Your task to perform on an android device: Search for pizza restaurants on Maps Image 0: 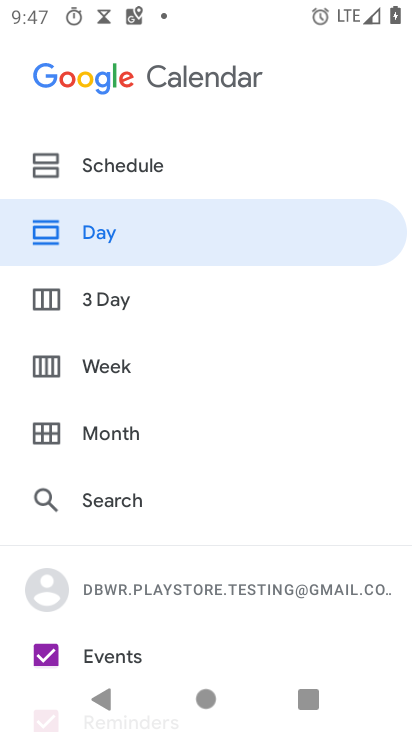
Step 0: press home button
Your task to perform on an android device: Search for pizza restaurants on Maps Image 1: 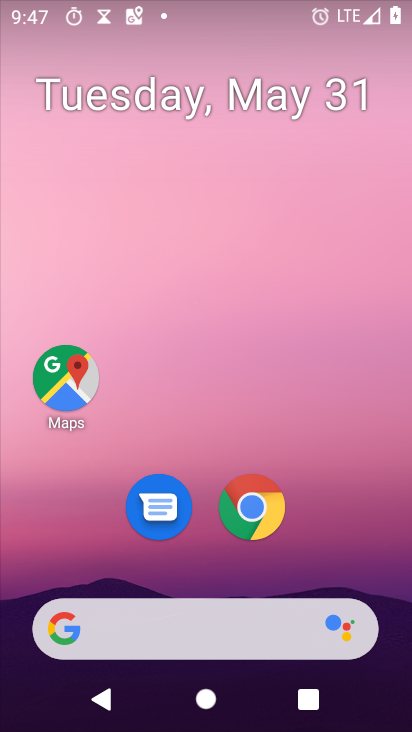
Step 1: click (37, 383)
Your task to perform on an android device: Search for pizza restaurants on Maps Image 2: 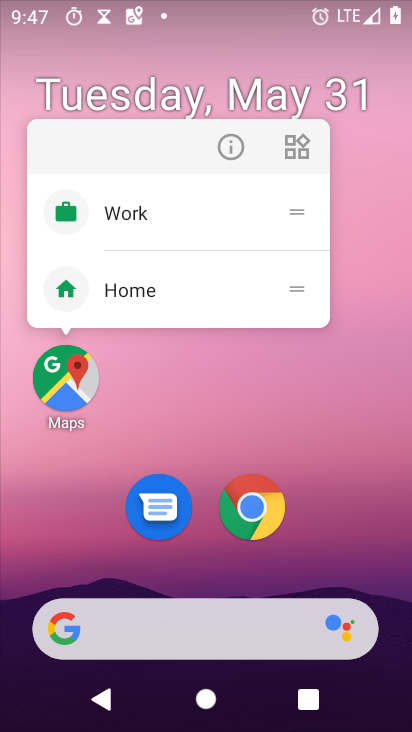
Step 2: click (53, 377)
Your task to perform on an android device: Search for pizza restaurants on Maps Image 3: 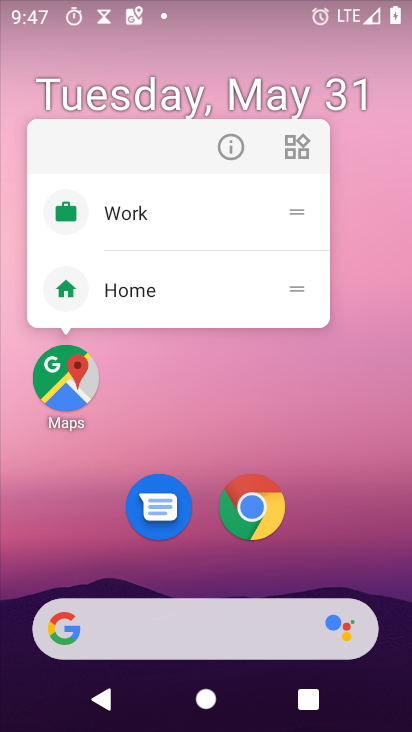
Step 3: click (54, 372)
Your task to perform on an android device: Search for pizza restaurants on Maps Image 4: 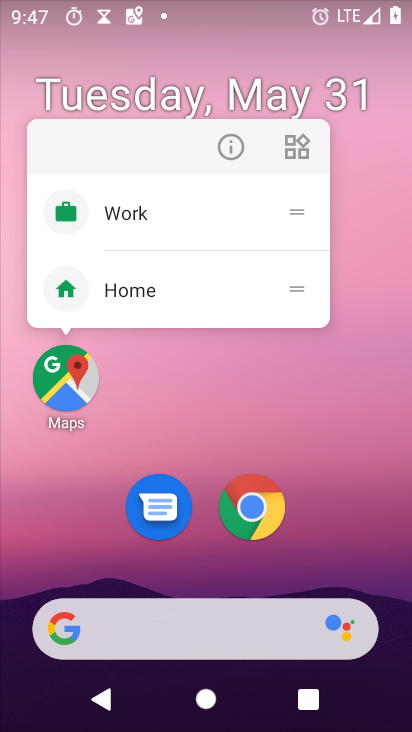
Step 4: click (54, 371)
Your task to perform on an android device: Search for pizza restaurants on Maps Image 5: 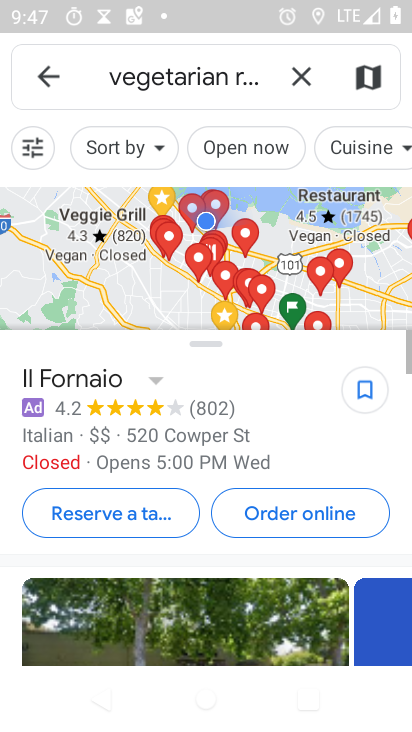
Step 5: click (292, 81)
Your task to perform on an android device: Search for pizza restaurants on Maps Image 6: 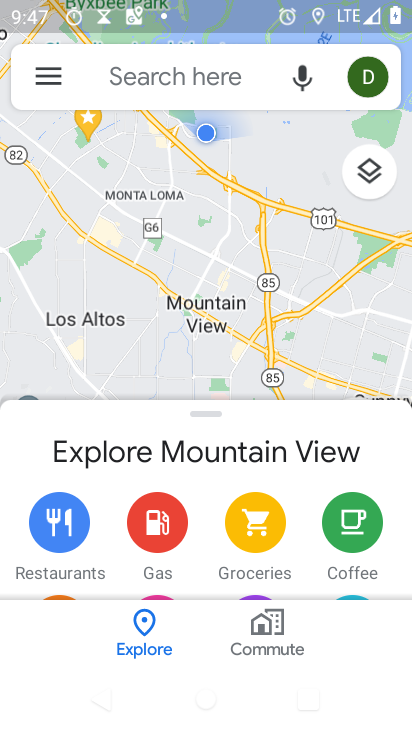
Step 6: click (196, 78)
Your task to perform on an android device: Search for pizza restaurants on Maps Image 7: 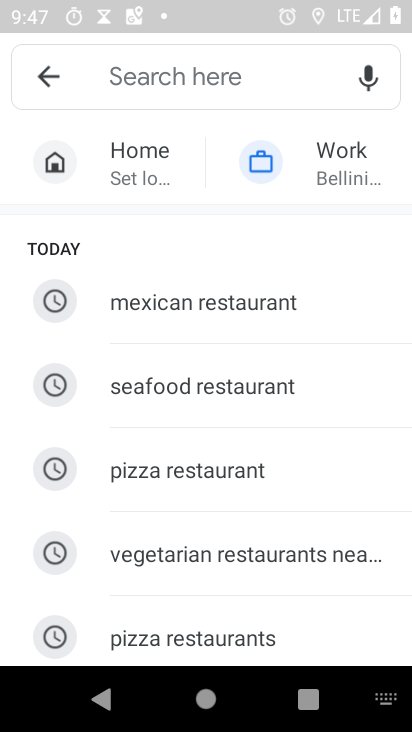
Step 7: click (200, 481)
Your task to perform on an android device: Search for pizza restaurants on Maps Image 8: 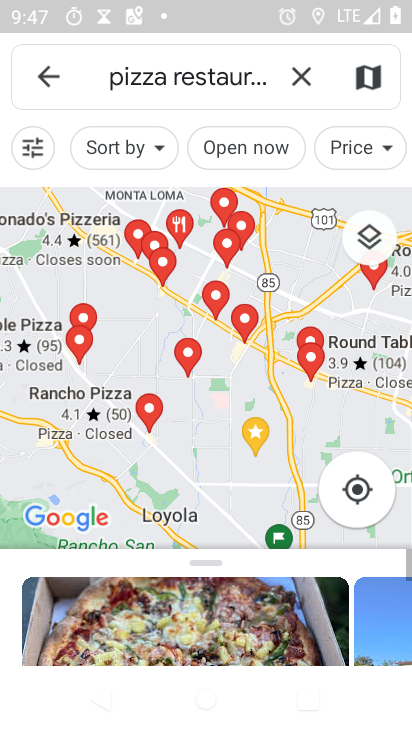
Step 8: task complete